Your task to perform on an android device: Open Google Maps Image 0: 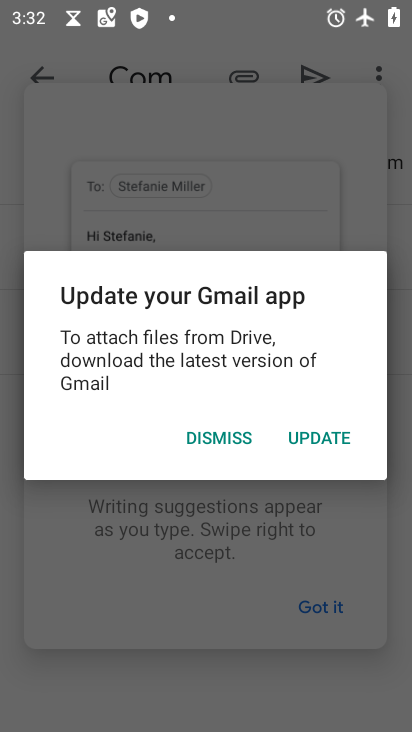
Step 0: press home button
Your task to perform on an android device: Open Google Maps Image 1: 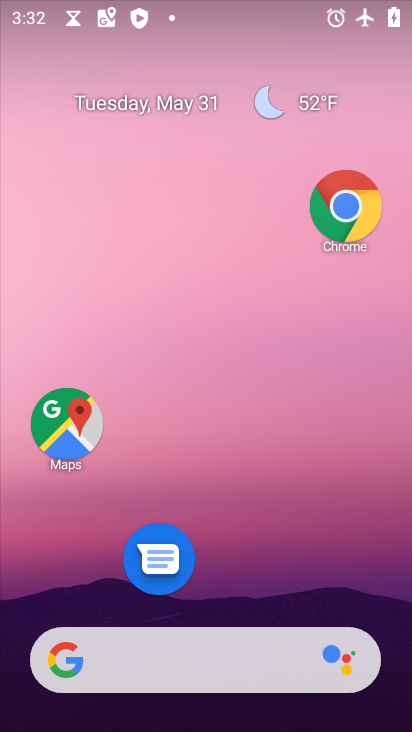
Step 1: drag from (35, 615) to (214, 246)
Your task to perform on an android device: Open Google Maps Image 2: 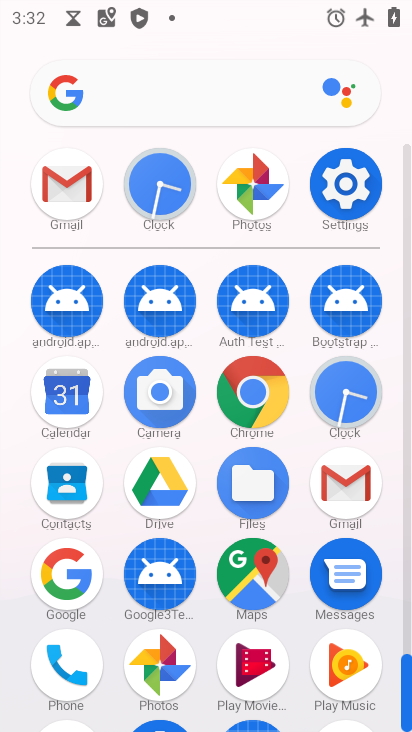
Step 2: click (235, 558)
Your task to perform on an android device: Open Google Maps Image 3: 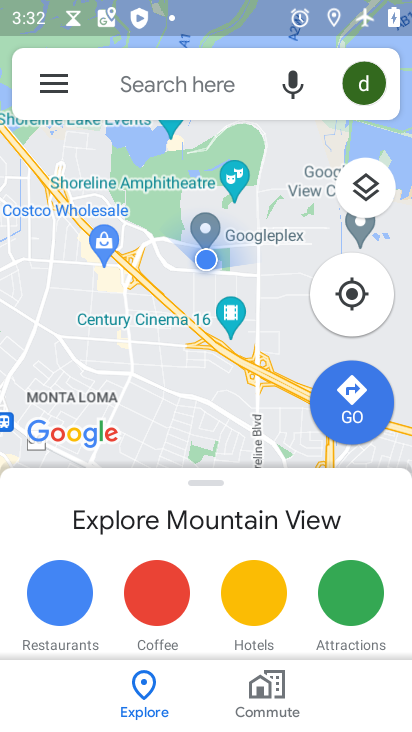
Step 3: task complete